Your task to perform on an android device: Search for vegetarian restaurants on Maps Image 0: 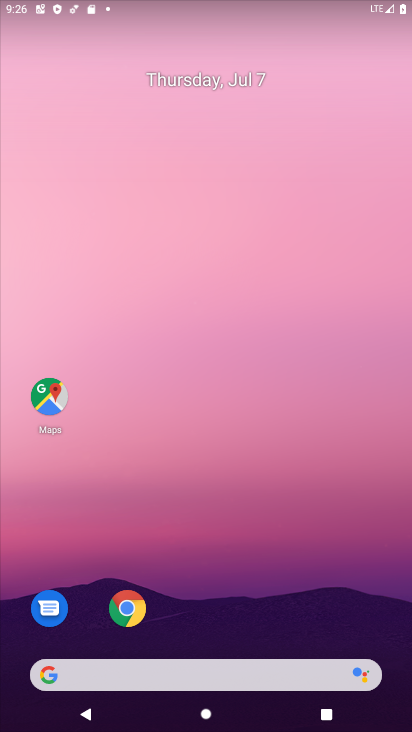
Step 0: drag from (198, 599) to (229, 208)
Your task to perform on an android device: Search for vegetarian restaurants on Maps Image 1: 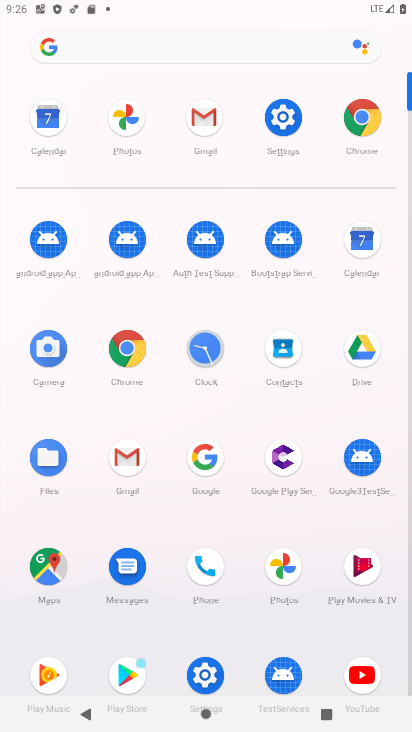
Step 1: click (49, 568)
Your task to perform on an android device: Search for vegetarian restaurants on Maps Image 2: 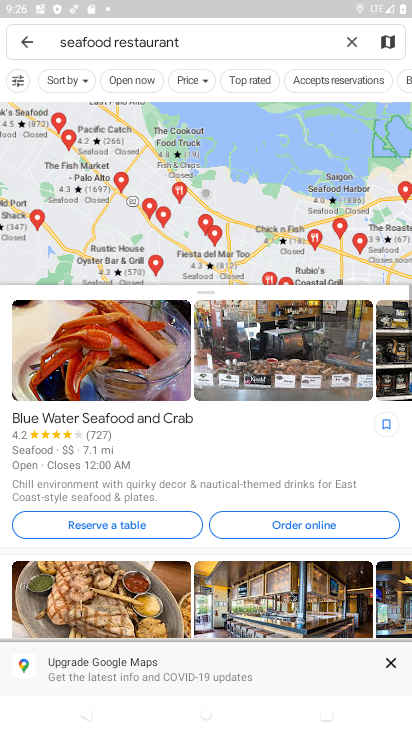
Step 2: click (344, 38)
Your task to perform on an android device: Search for vegetarian restaurants on Maps Image 3: 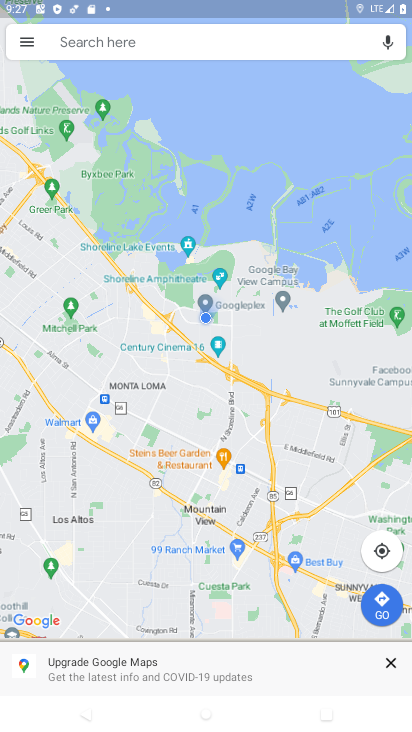
Step 3: click (173, 38)
Your task to perform on an android device: Search for vegetarian restaurants on Maps Image 4: 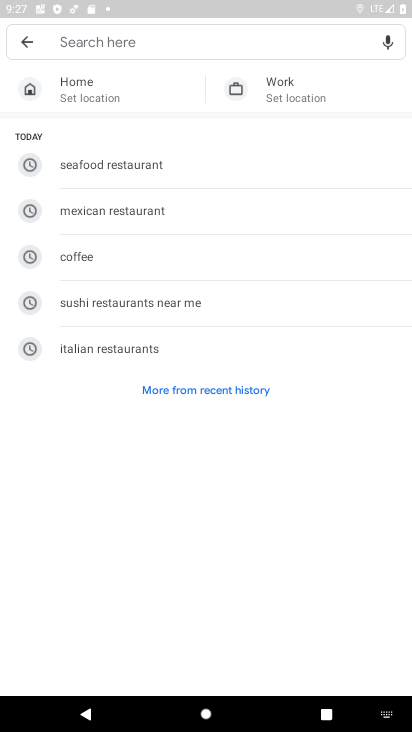
Step 4: type "vegetarian restaurants"
Your task to perform on an android device: Search for vegetarian restaurants on Maps Image 5: 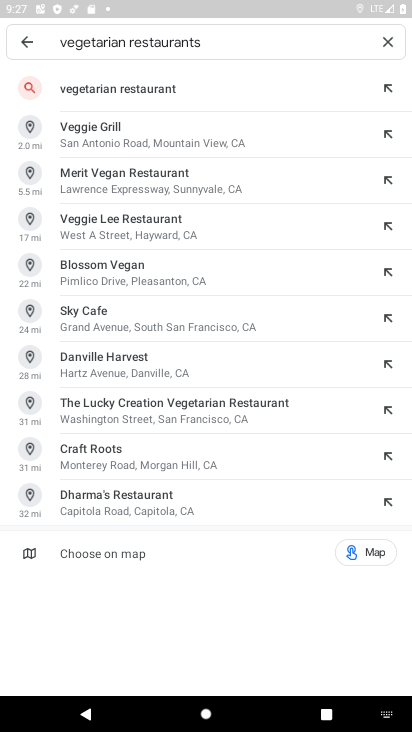
Step 5: click (148, 87)
Your task to perform on an android device: Search for vegetarian restaurants on Maps Image 6: 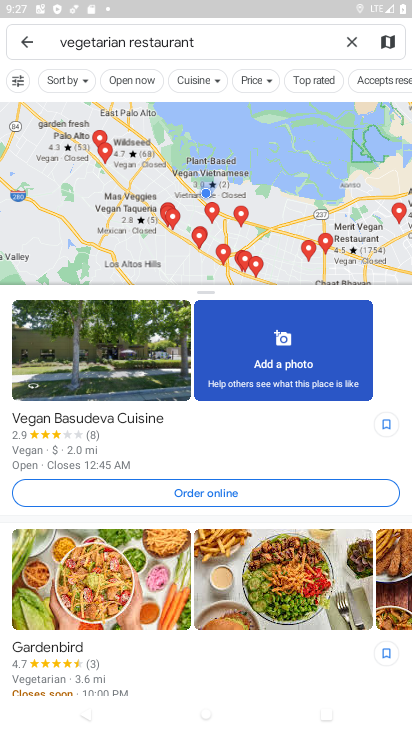
Step 6: task complete